Your task to perform on an android device: What is the speed of a skateboard? Image 0: 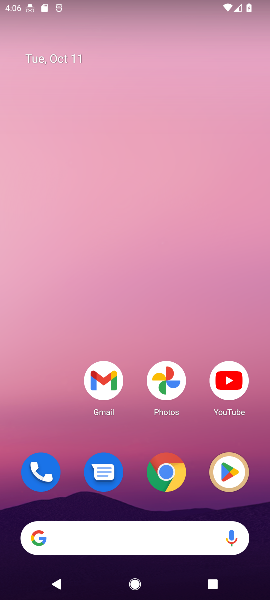
Step 0: click (162, 470)
Your task to perform on an android device: What is the speed of a skateboard? Image 1: 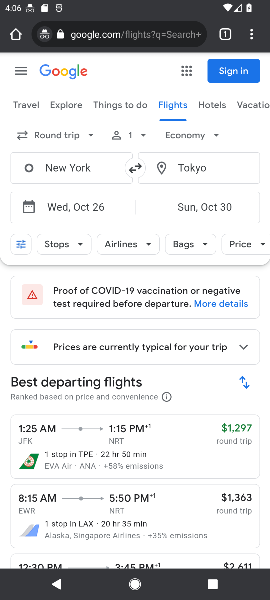
Step 1: click (87, 42)
Your task to perform on an android device: What is the speed of a skateboard? Image 2: 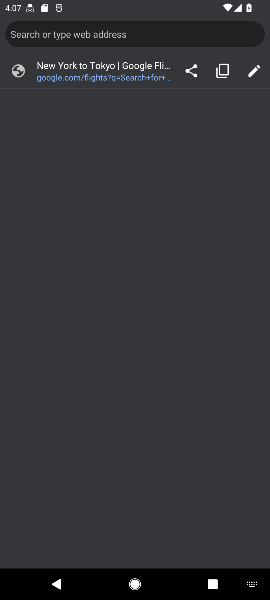
Step 2: type "What is the speed of a skateboard?"
Your task to perform on an android device: What is the speed of a skateboard? Image 3: 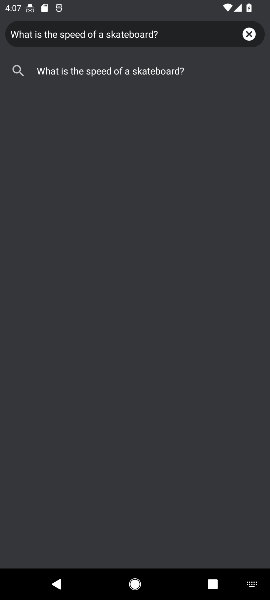
Step 3: click (57, 76)
Your task to perform on an android device: What is the speed of a skateboard? Image 4: 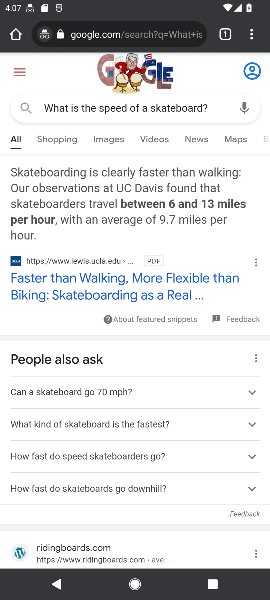
Step 4: task complete